Your task to perform on an android device: Clear all items from cart on newegg. Add "macbook air" to the cart on newegg Image 0: 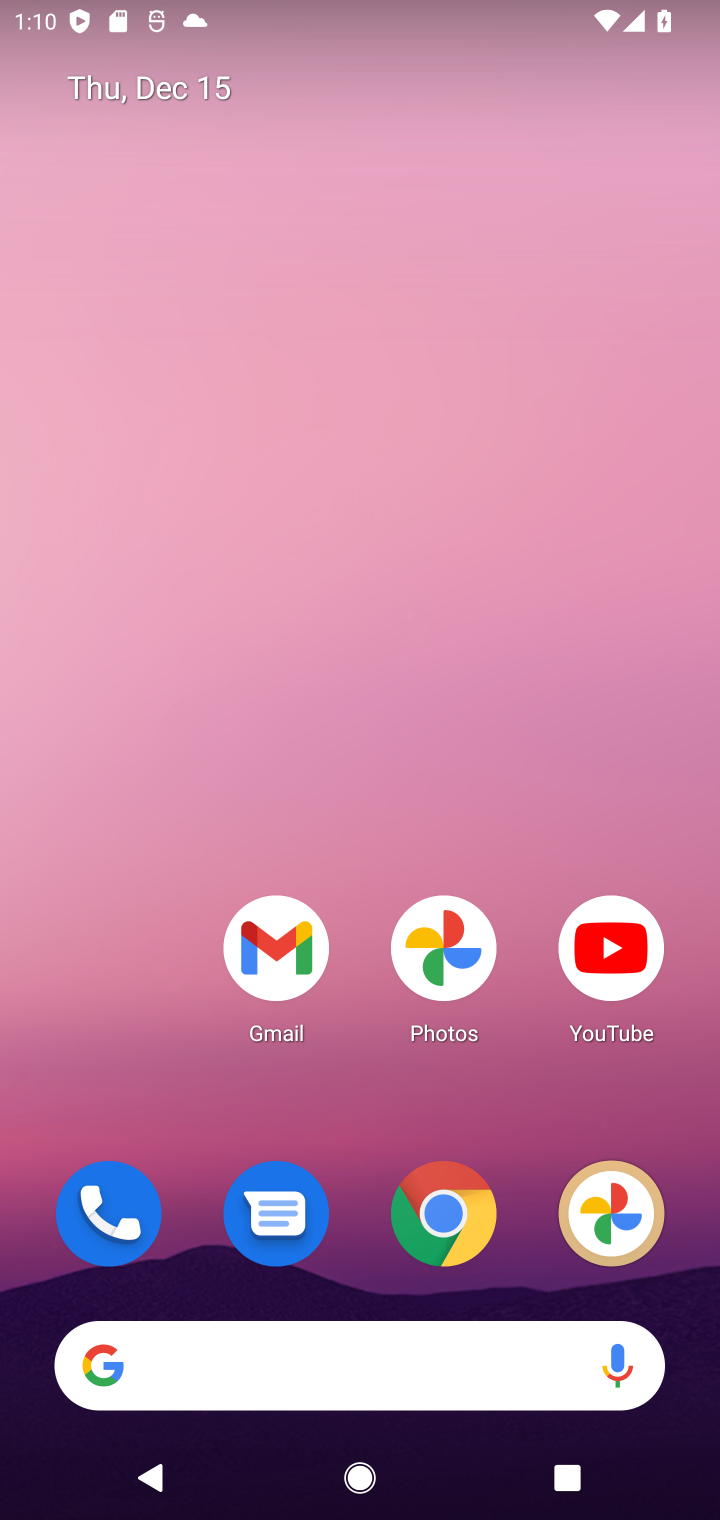
Step 0: click (238, 1373)
Your task to perform on an android device: Clear all items from cart on newegg. Add "macbook air" to the cart on newegg Image 1: 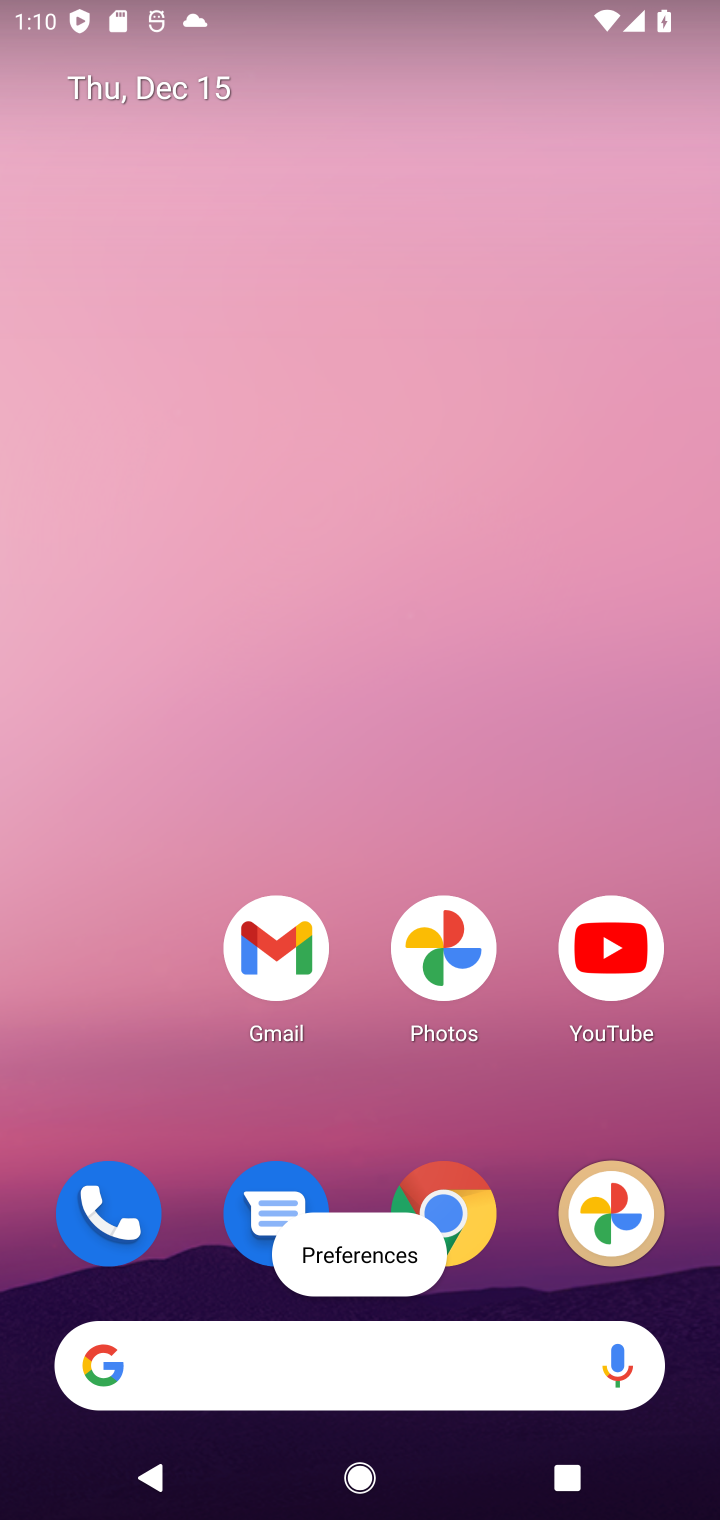
Step 1: click (292, 1384)
Your task to perform on an android device: Clear all items from cart on newegg. Add "macbook air" to the cart on newegg Image 2: 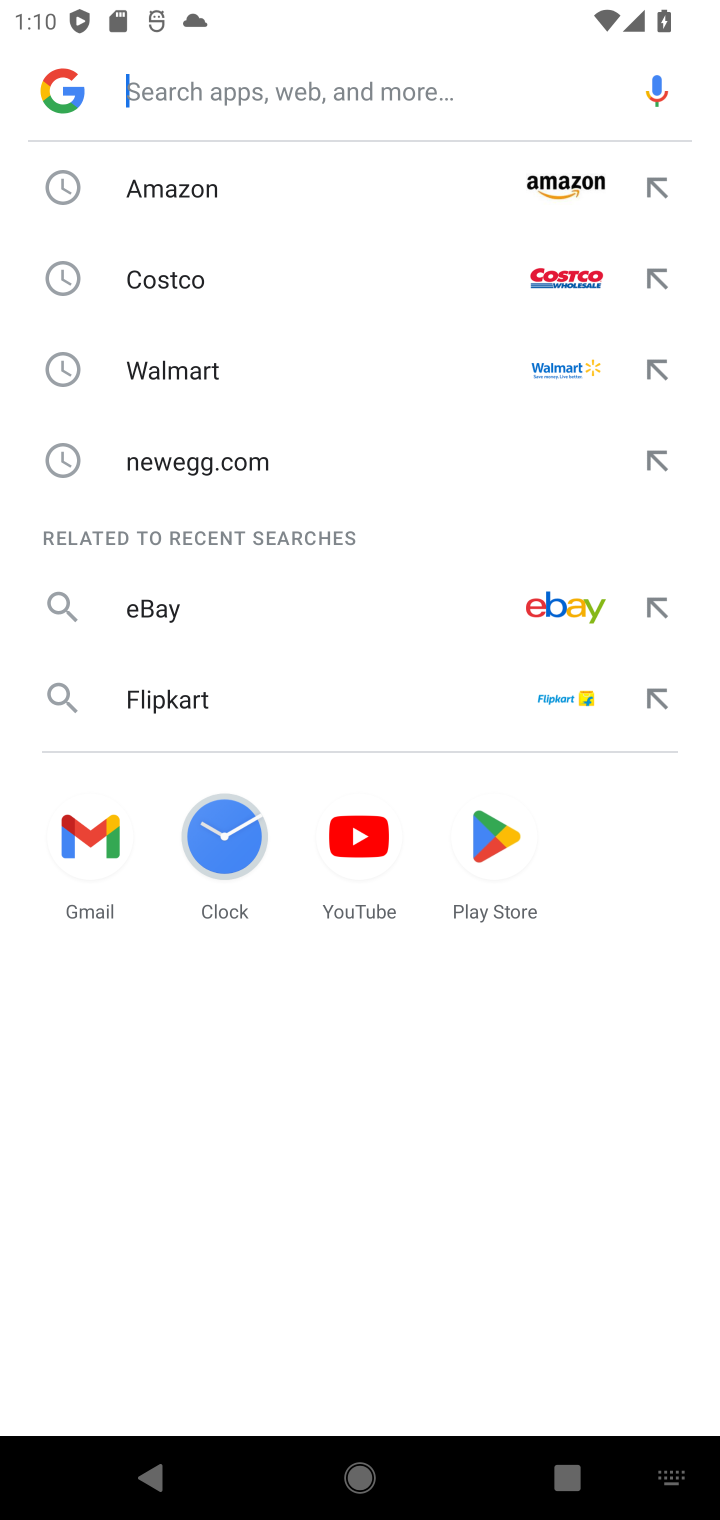
Step 2: click (251, 458)
Your task to perform on an android device: Clear all items from cart on newegg. Add "macbook air" to the cart on newegg Image 3: 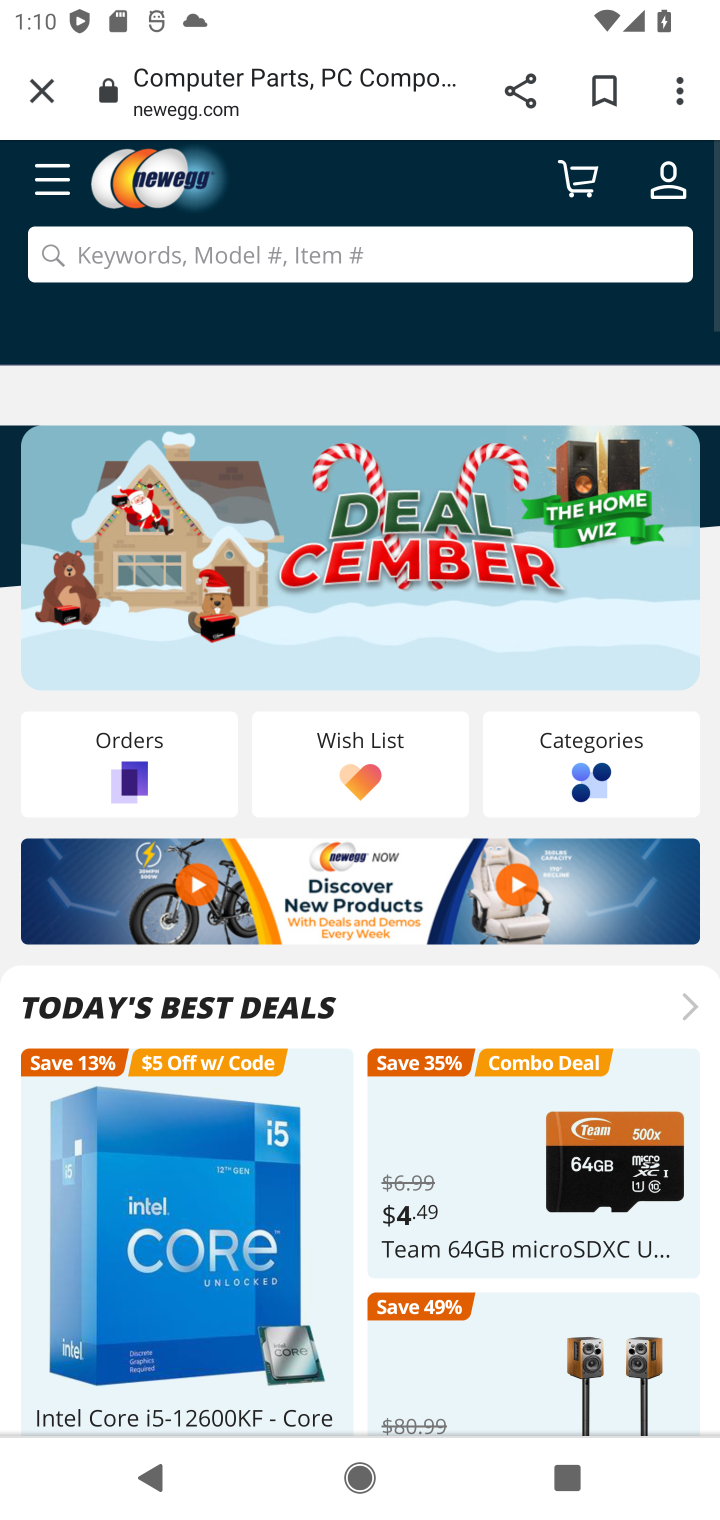
Step 3: click (413, 248)
Your task to perform on an android device: Clear all items from cart on newegg. Add "macbook air" to the cart on newegg Image 4: 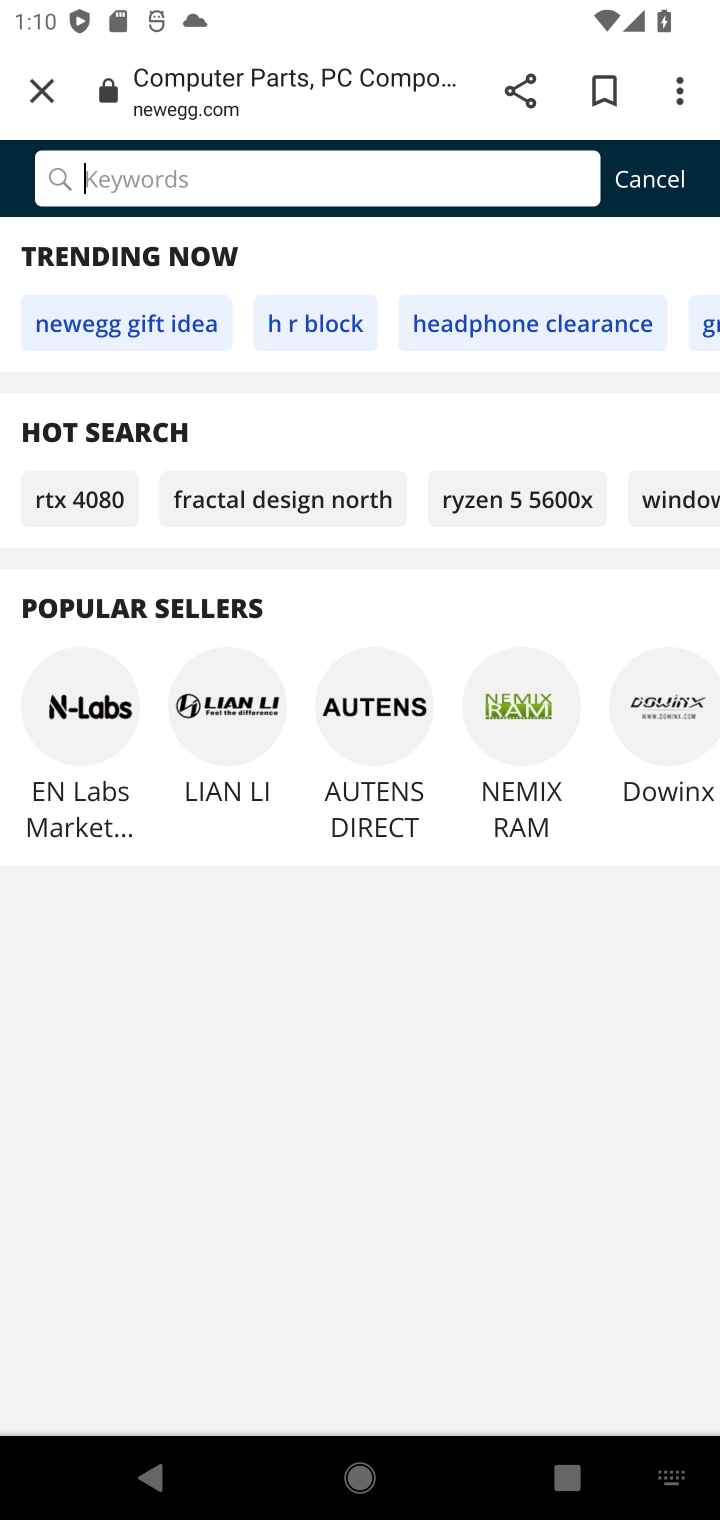
Step 4: type "macbook air"
Your task to perform on an android device: Clear all items from cart on newegg. Add "macbook air" to the cart on newegg Image 5: 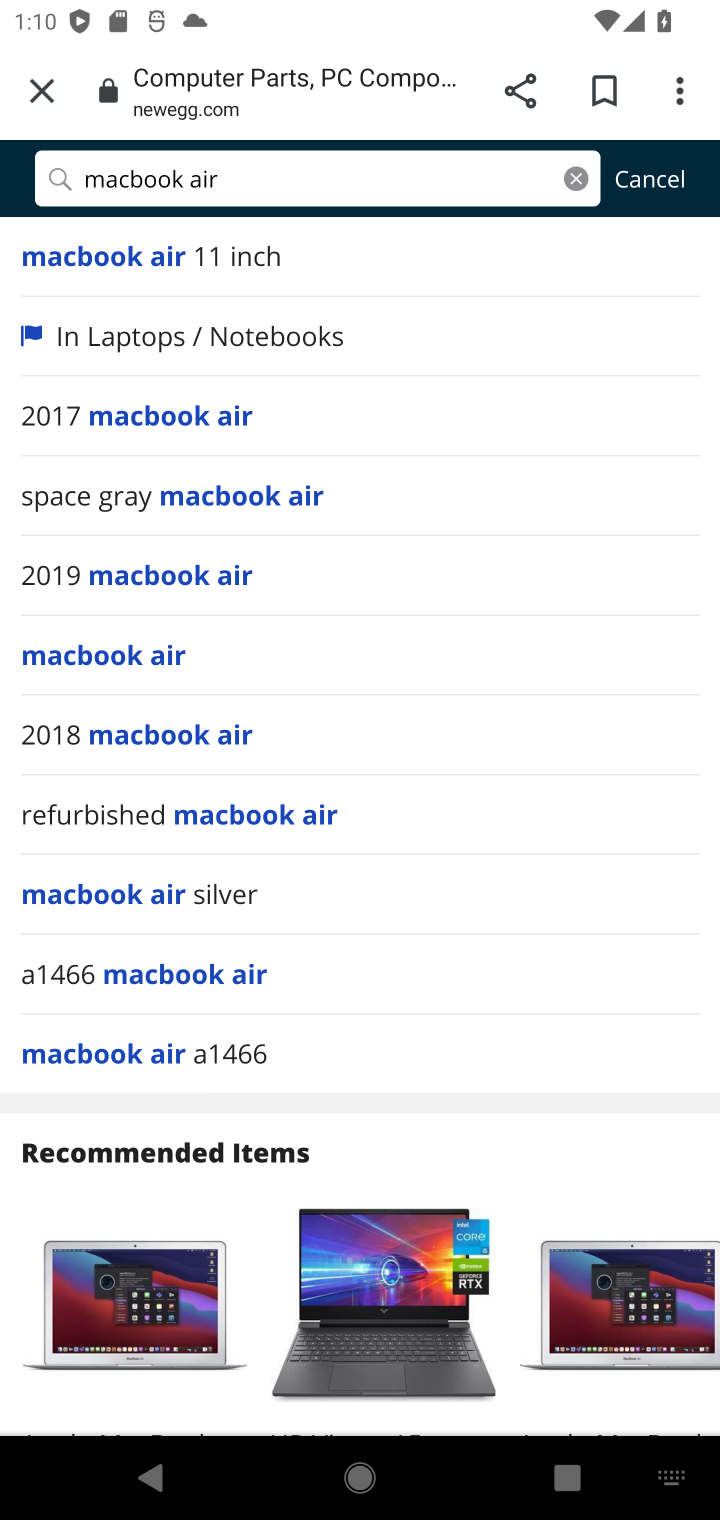
Step 5: click (274, 287)
Your task to perform on an android device: Clear all items from cart on newegg. Add "macbook air" to the cart on newegg Image 6: 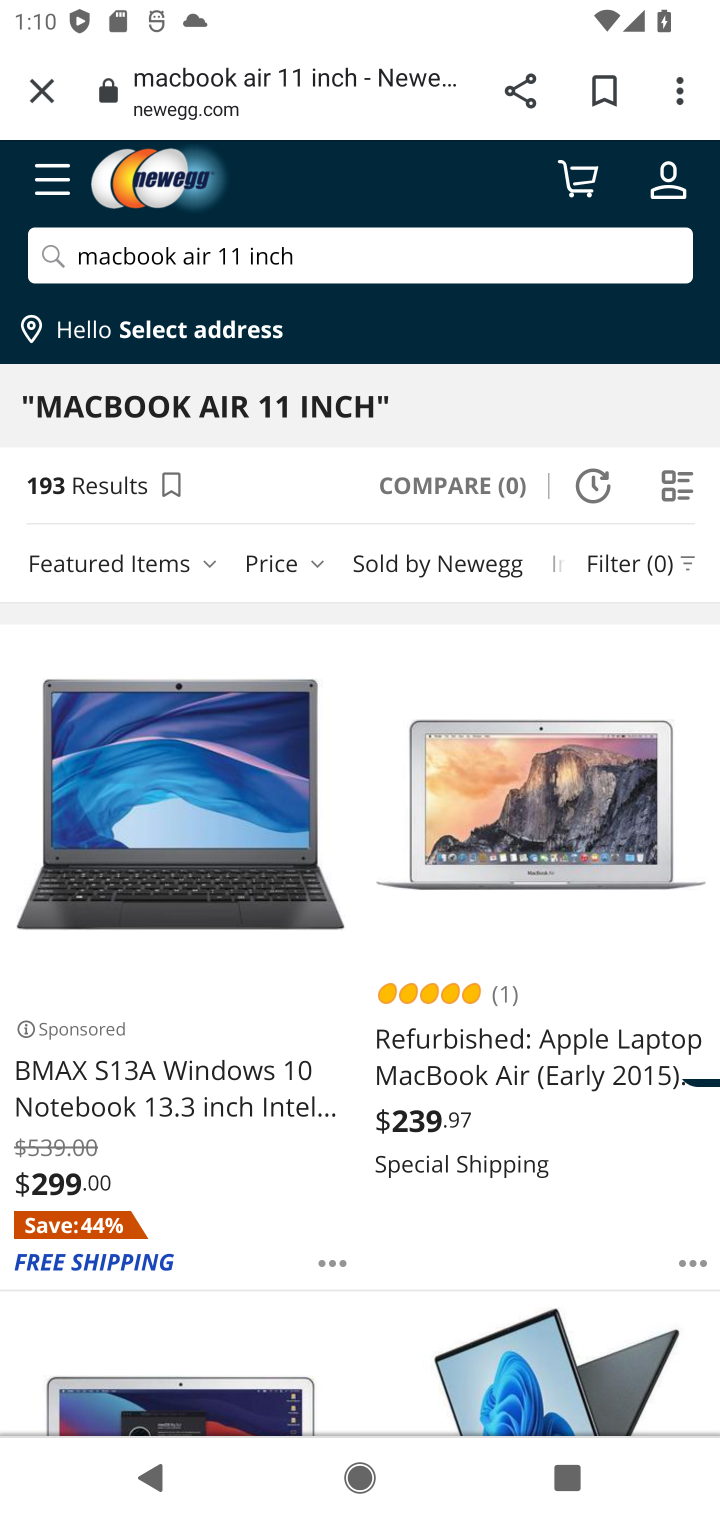
Step 6: click (195, 920)
Your task to perform on an android device: Clear all items from cart on newegg. Add "macbook air" to the cart on newegg Image 7: 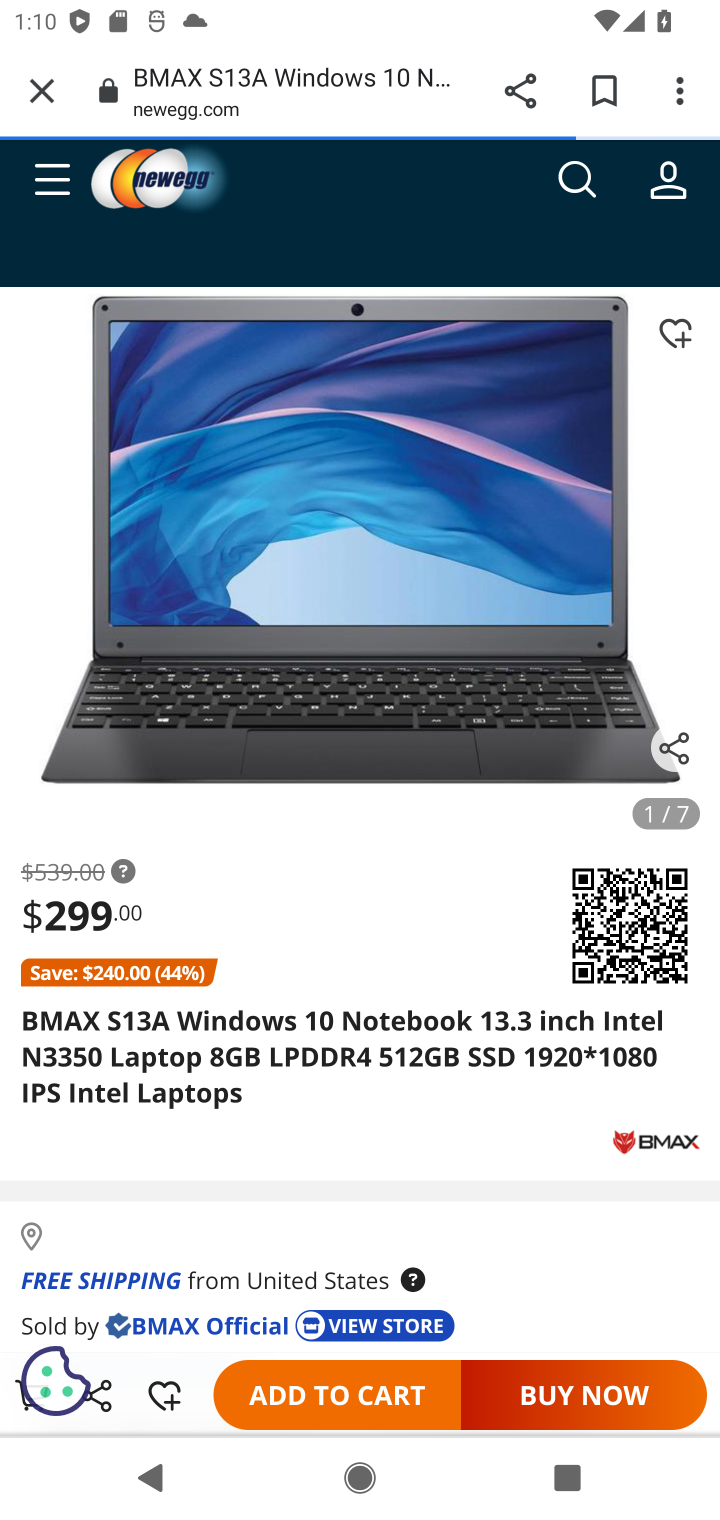
Step 7: click (339, 1413)
Your task to perform on an android device: Clear all items from cart on newegg. Add "macbook air" to the cart on newegg Image 8: 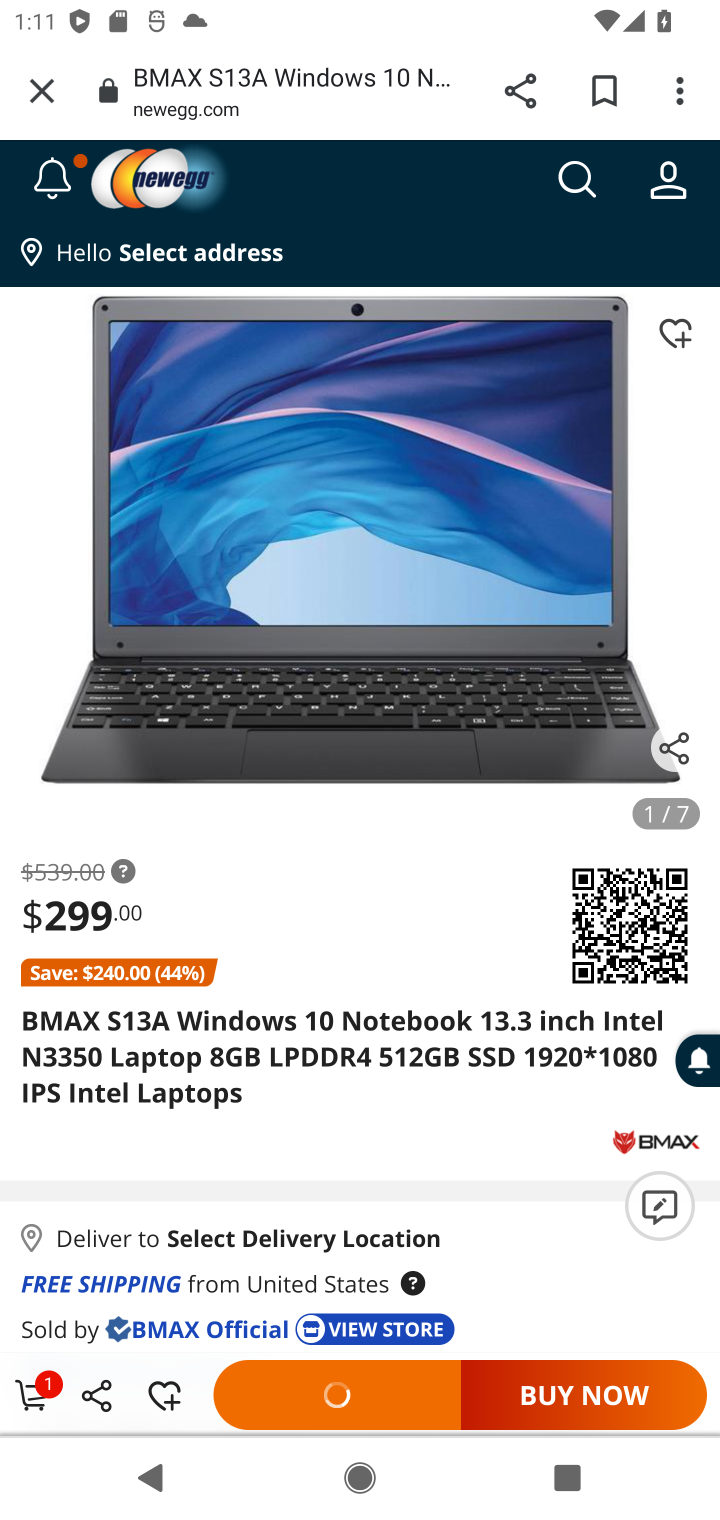
Step 8: task complete